Your task to perform on an android device: set the timer Image 0: 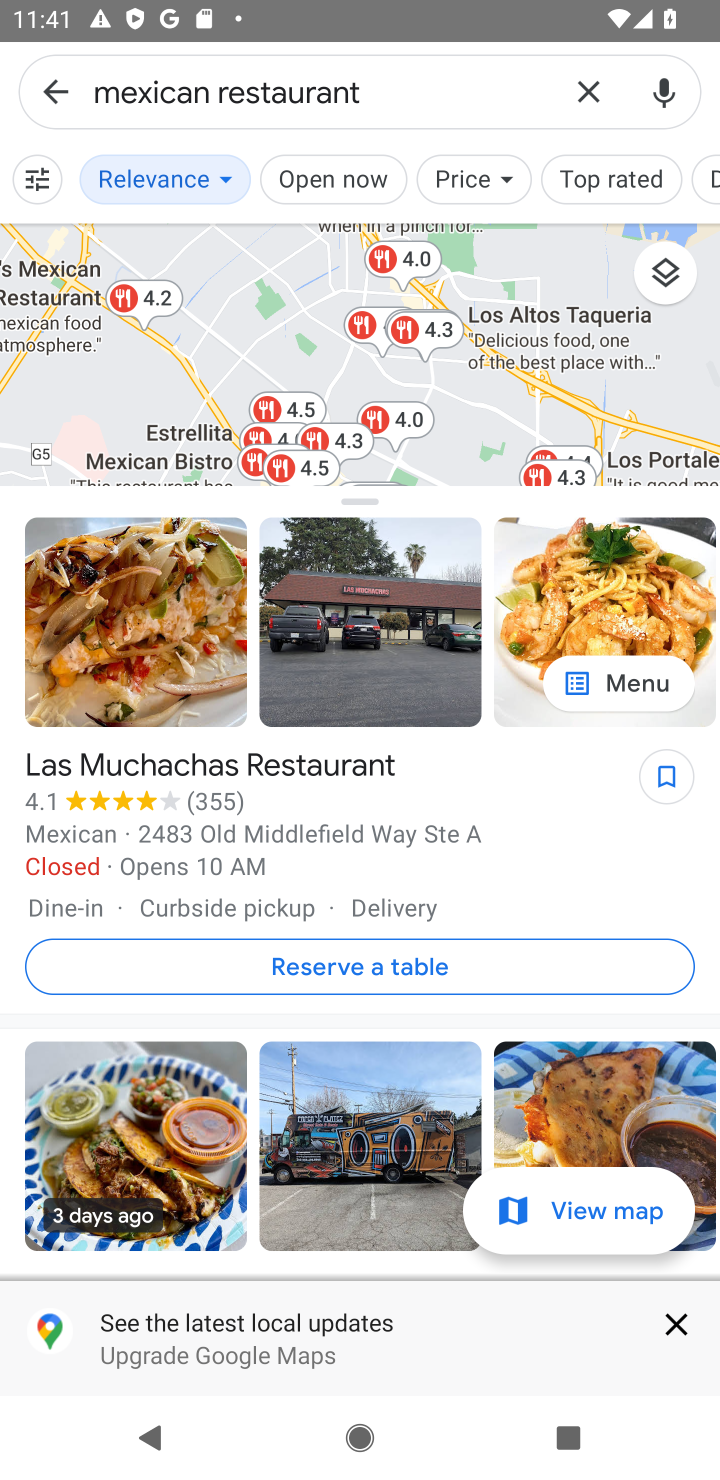
Step 0: press home button
Your task to perform on an android device: set the timer Image 1: 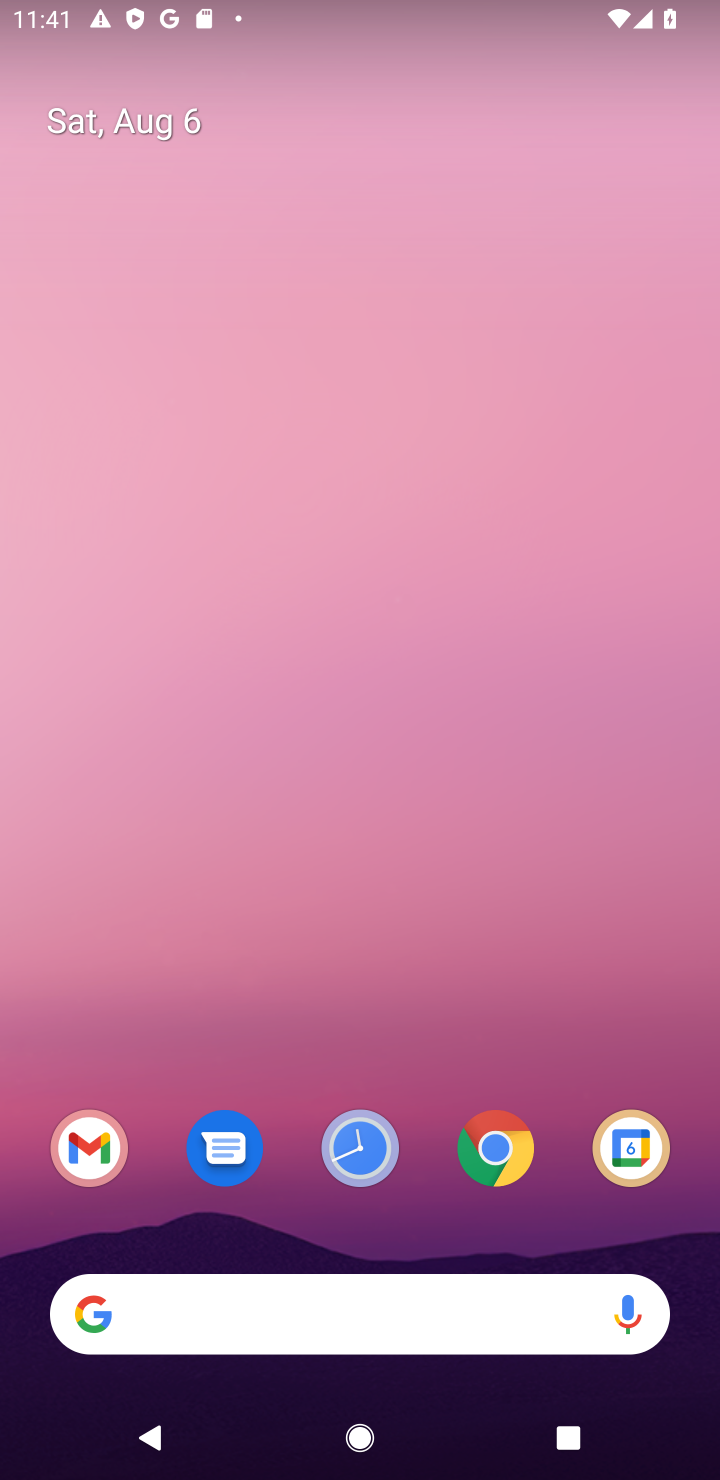
Step 1: drag from (411, 1017) to (277, 282)
Your task to perform on an android device: set the timer Image 2: 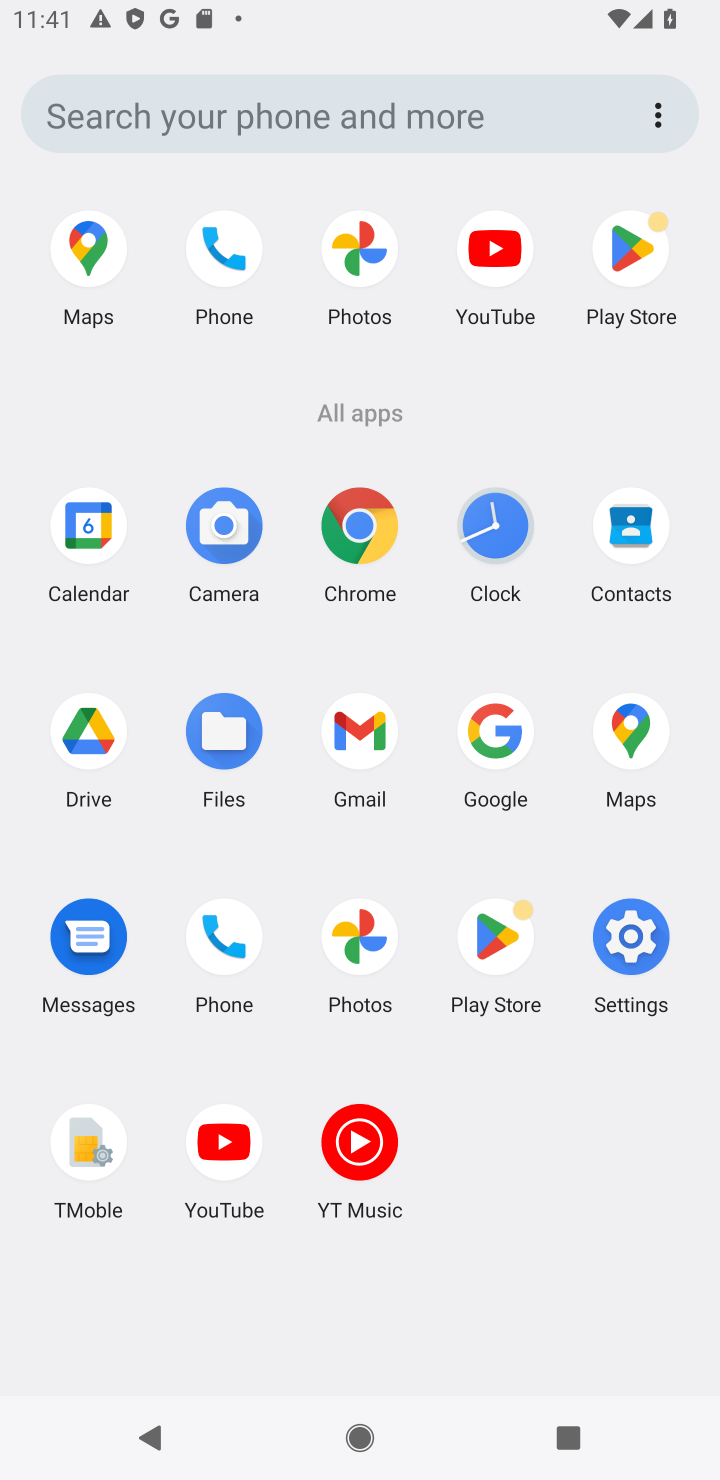
Step 2: click (506, 509)
Your task to perform on an android device: set the timer Image 3: 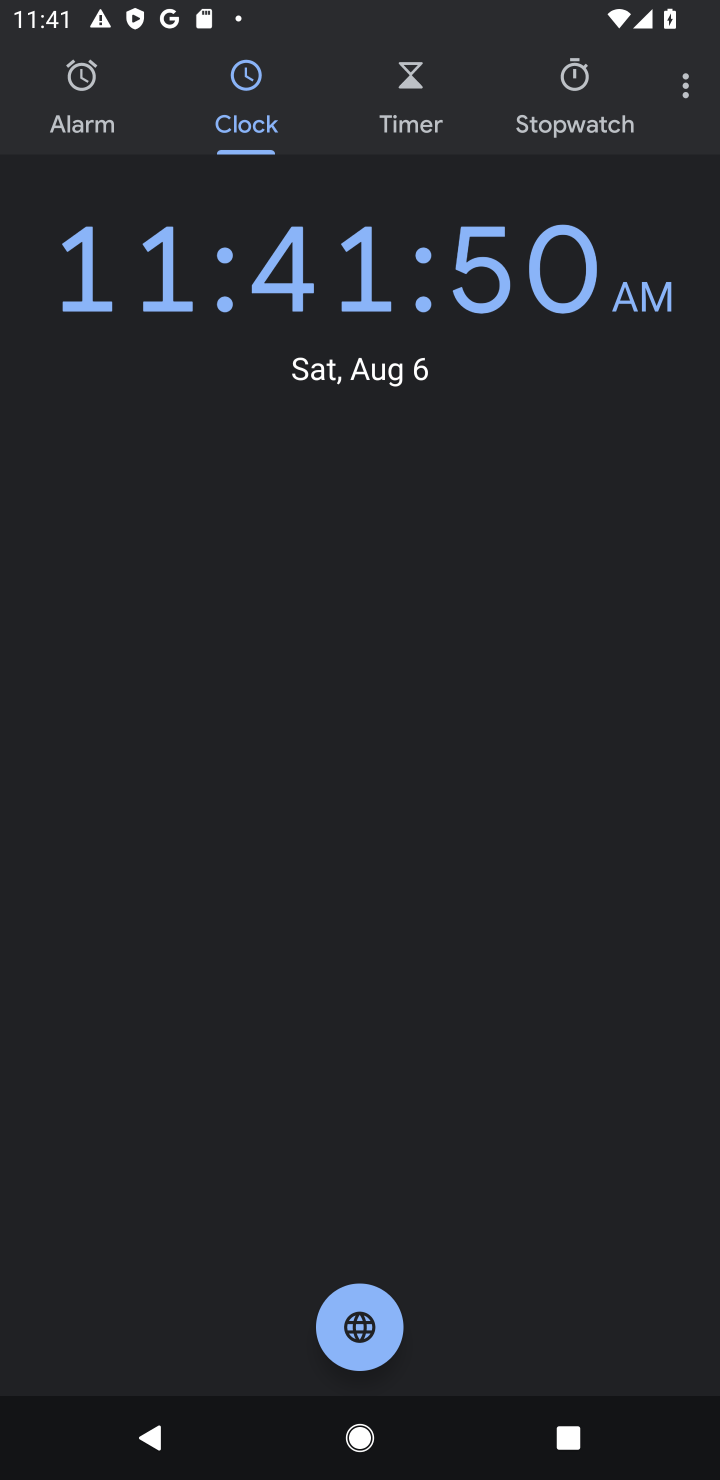
Step 3: click (410, 79)
Your task to perform on an android device: set the timer Image 4: 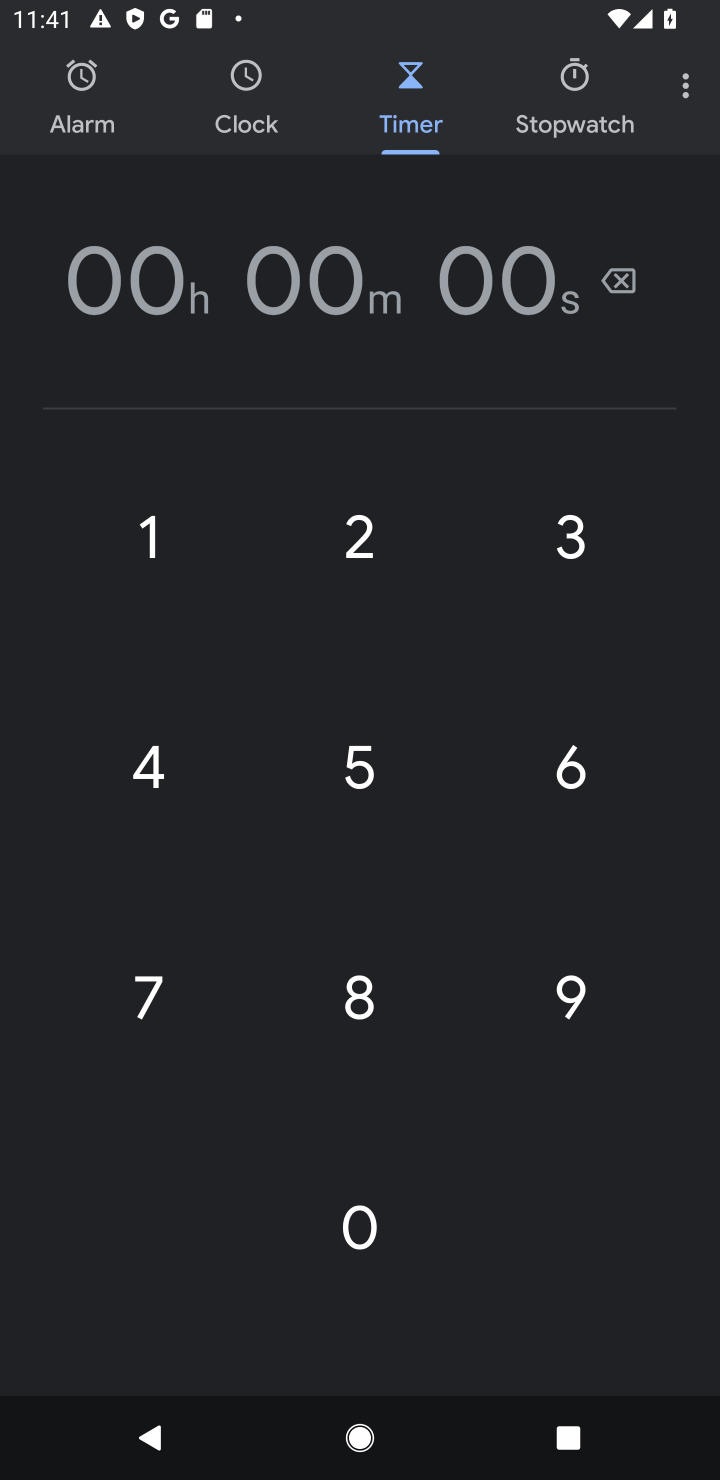
Step 4: click (164, 543)
Your task to perform on an android device: set the timer Image 5: 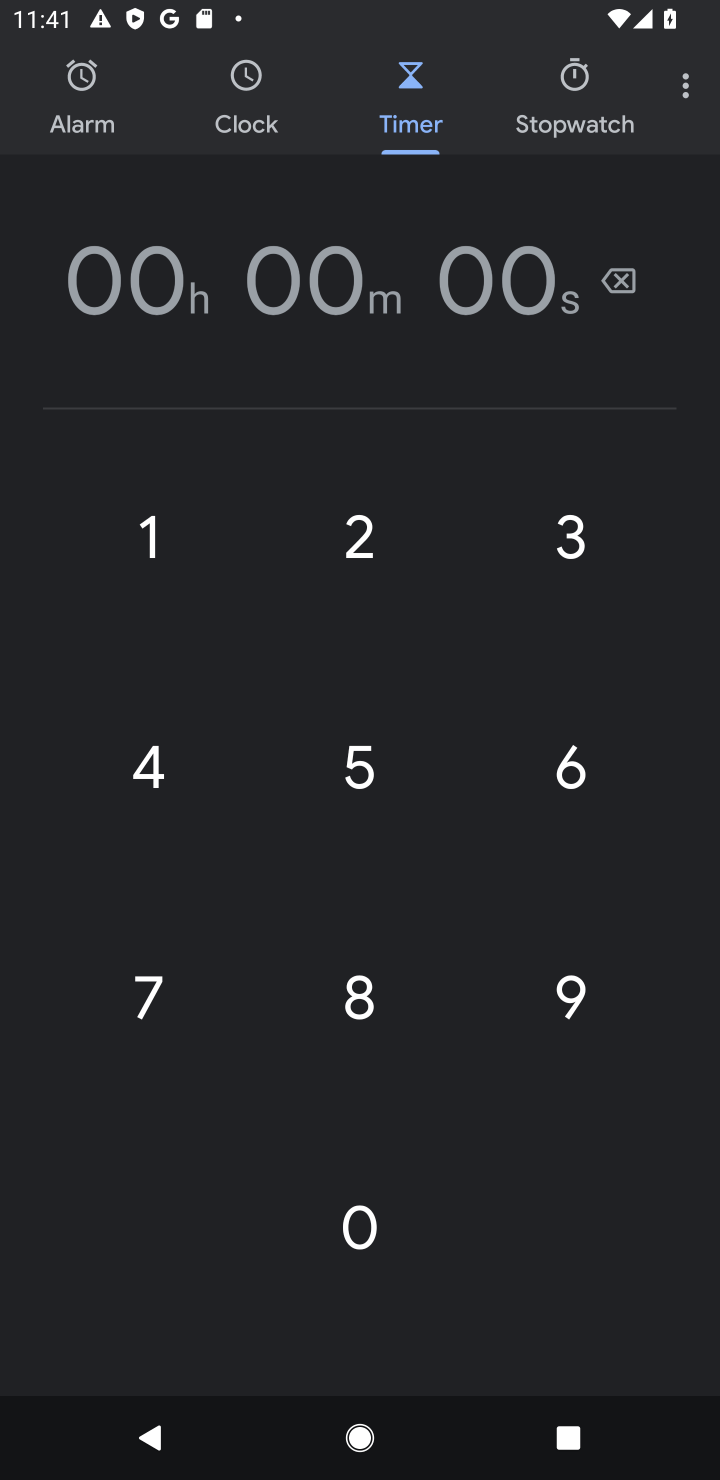
Step 5: click (164, 543)
Your task to perform on an android device: set the timer Image 6: 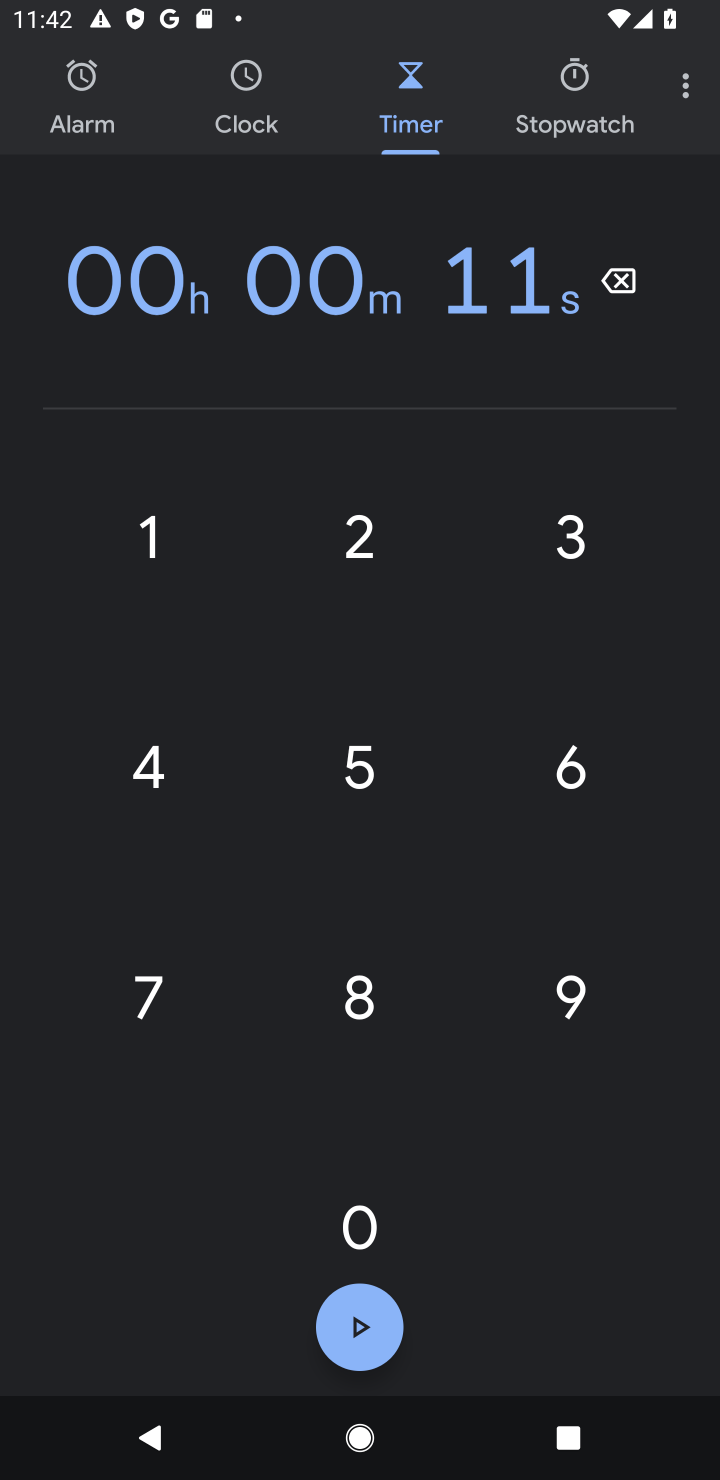
Step 6: click (144, 542)
Your task to perform on an android device: set the timer Image 7: 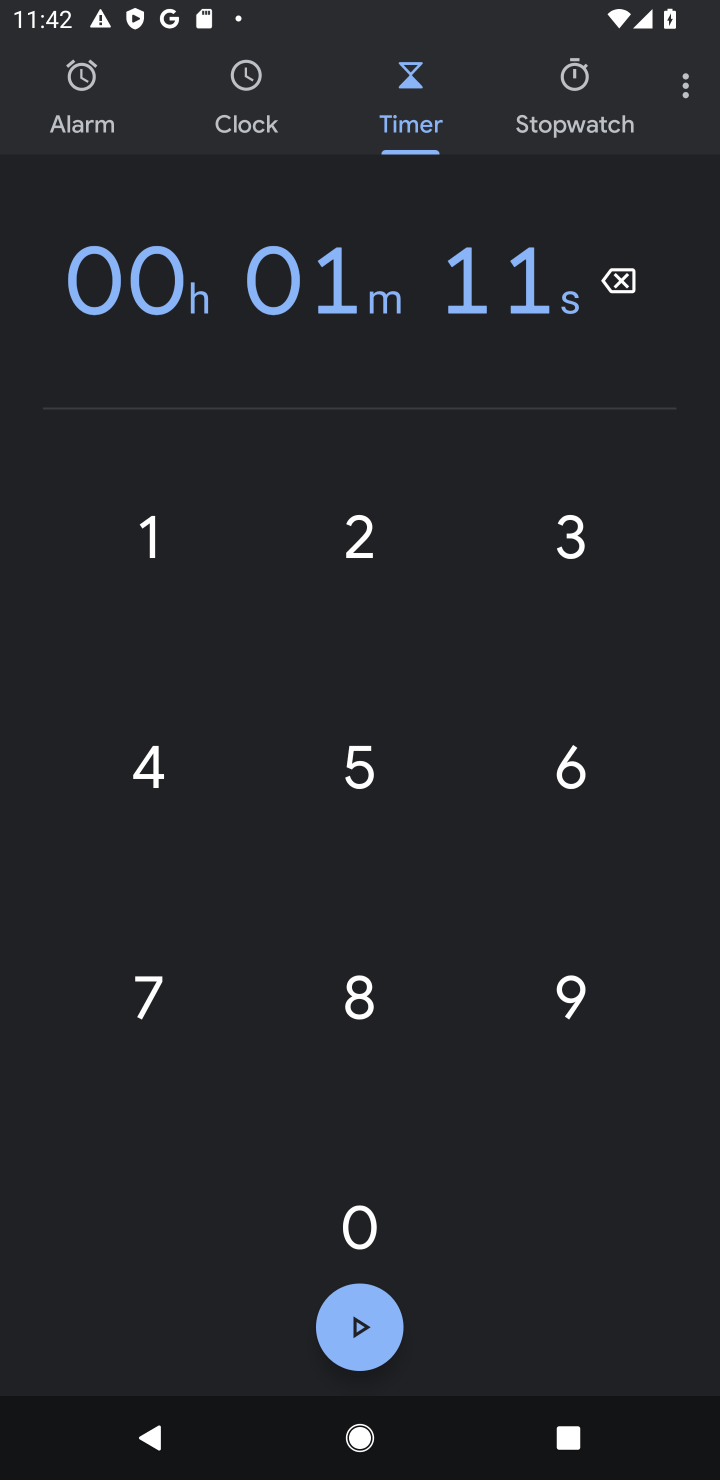
Step 7: click (144, 542)
Your task to perform on an android device: set the timer Image 8: 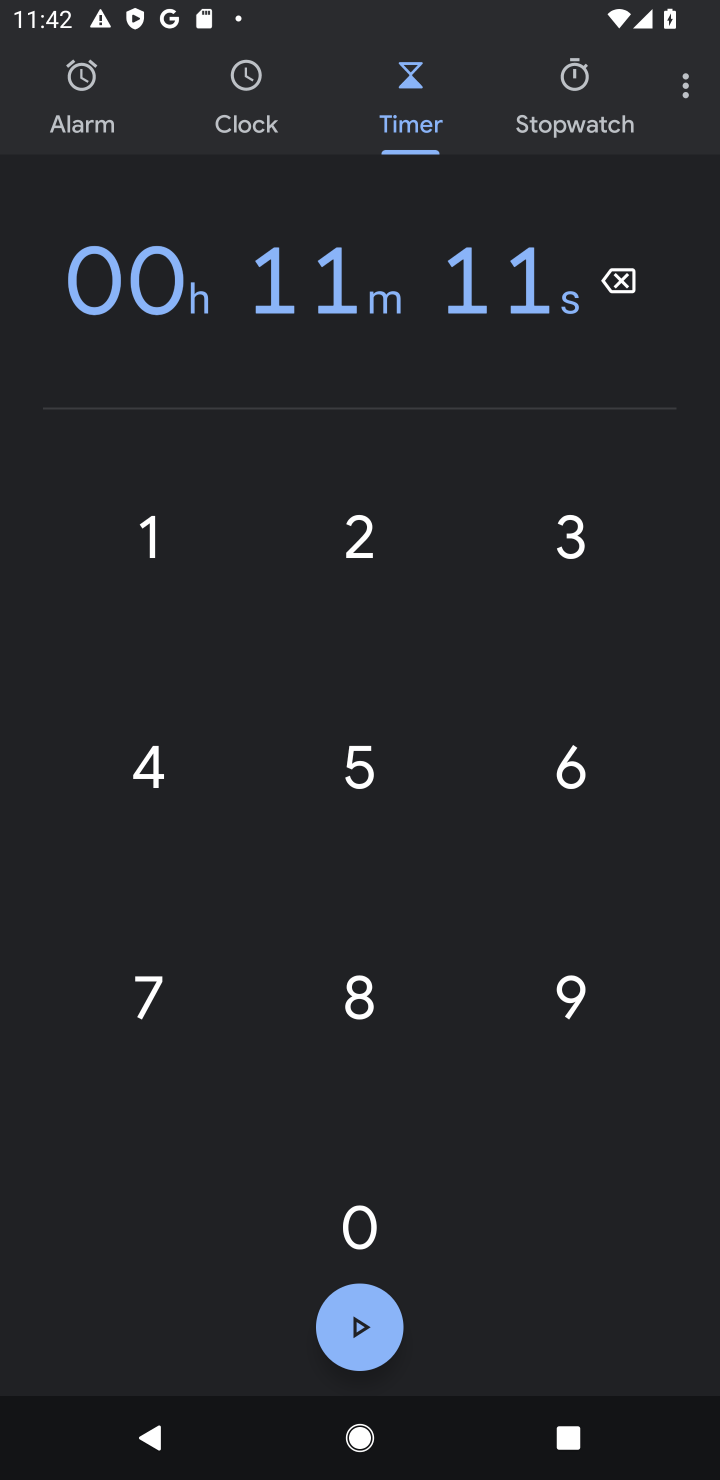
Step 8: click (177, 542)
Your task to perform on an android device: set the timer Image 9: 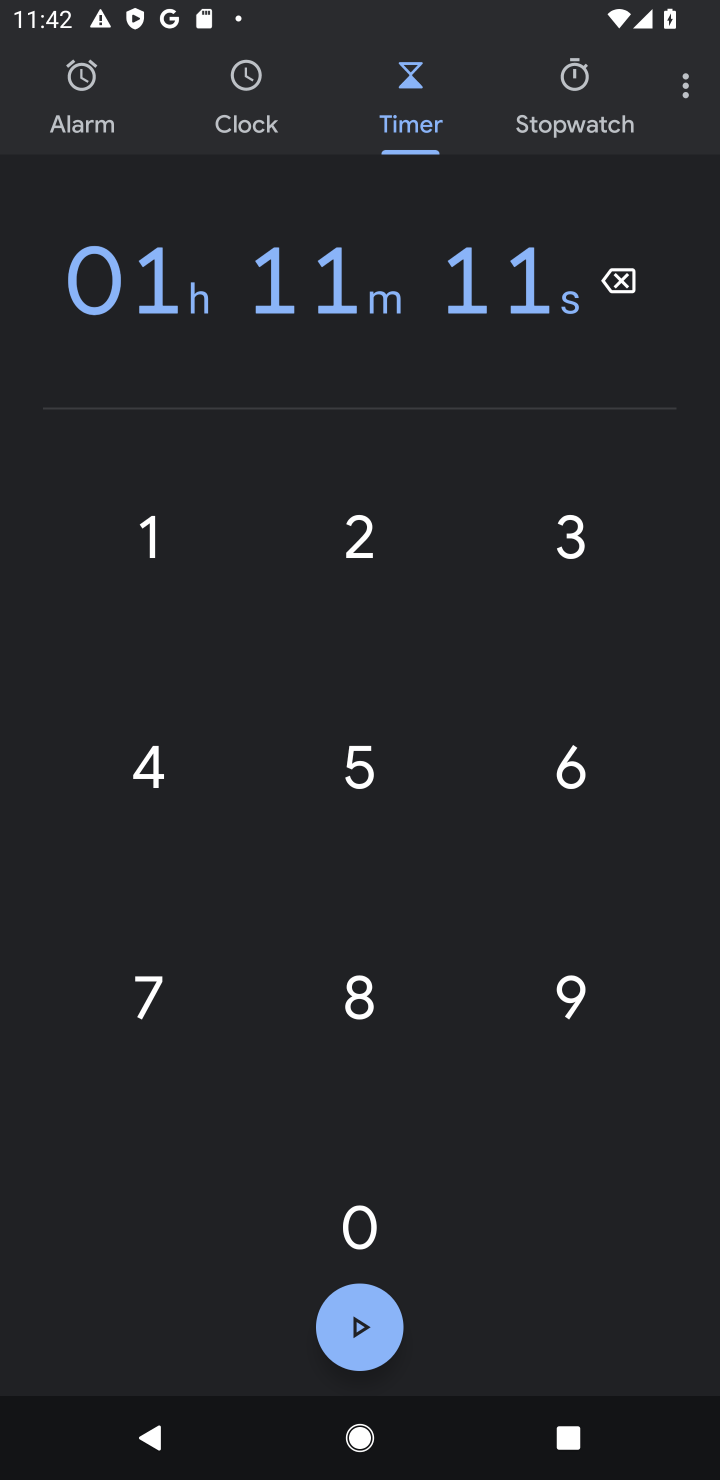
Step 9: click (137, 542)
Your task to perform on an android device: set the timer Image 10: 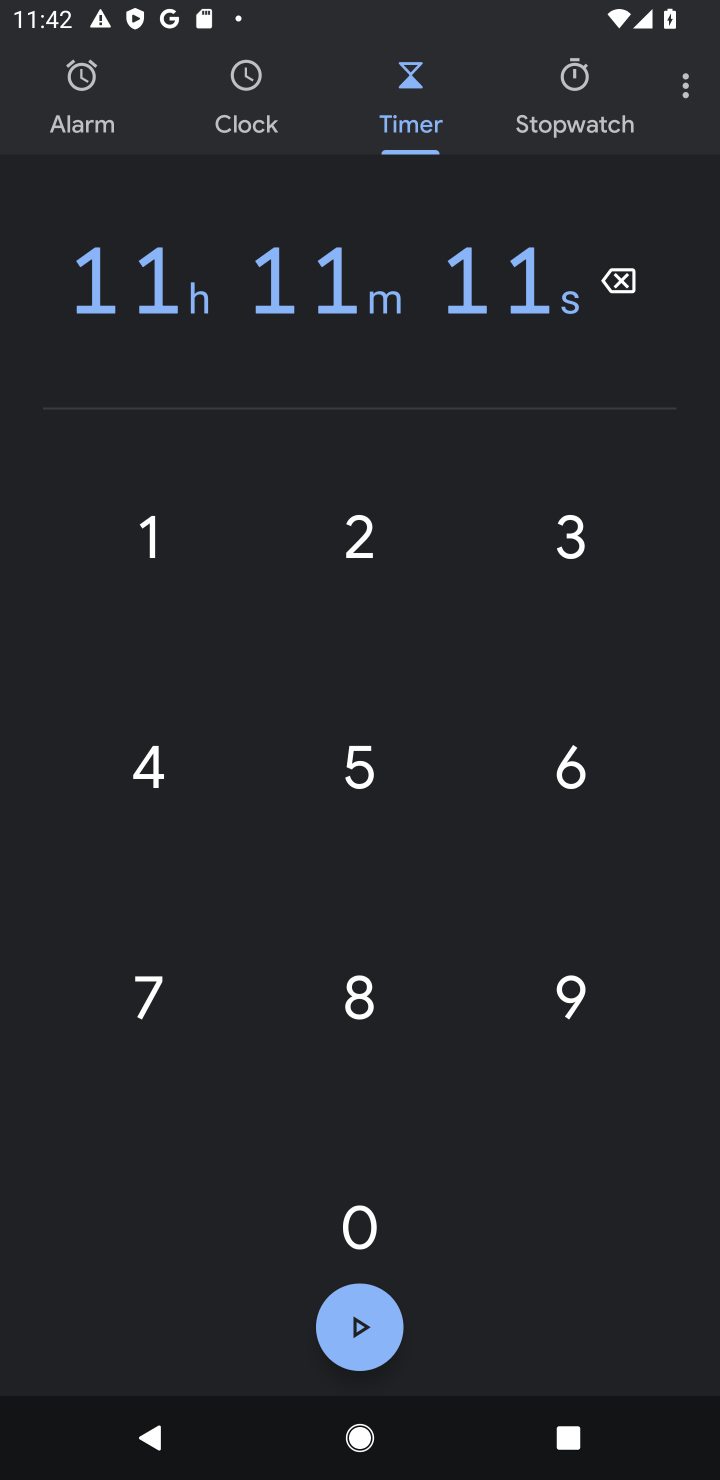
Step 10: task complete